Your task to perform on an android device: Go to CNN.com Image 0: 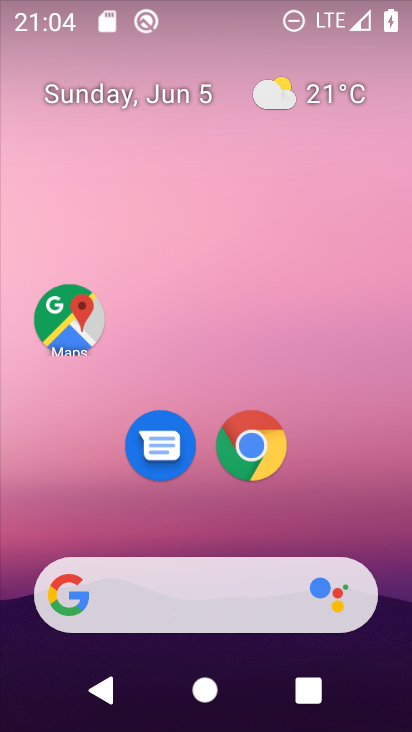
Step 0: click (248, 615)
Your task to perform on an android device: Go to CNN.com Image 1: 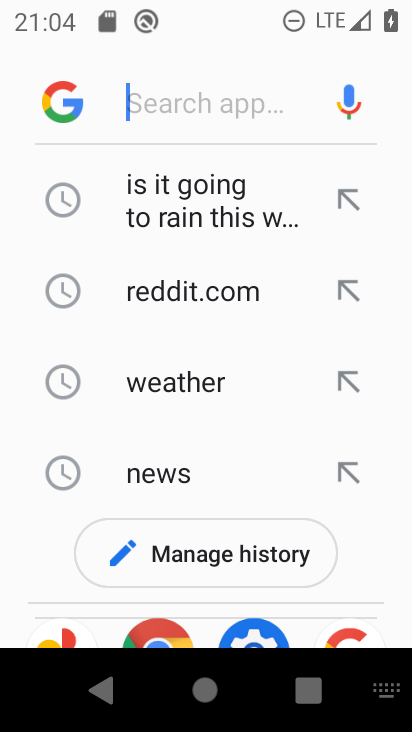
Step 1: type "CNN.com"
Your task to perform on an android device: Go to CNN.com Image 2: 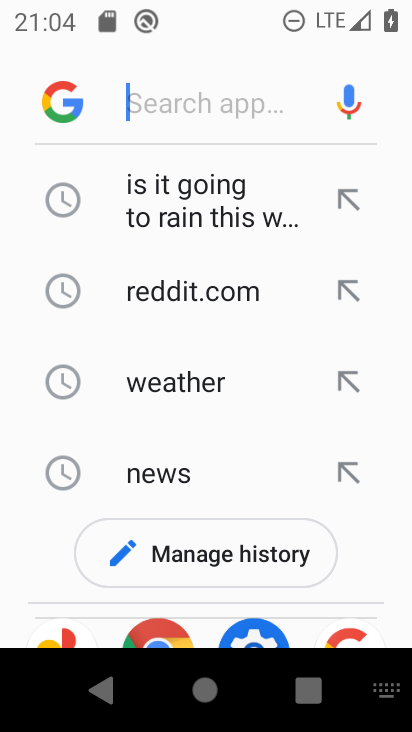
Step 2: click (197, 119)
Your task to perform on an android device: Go to CNN.com Image 3: 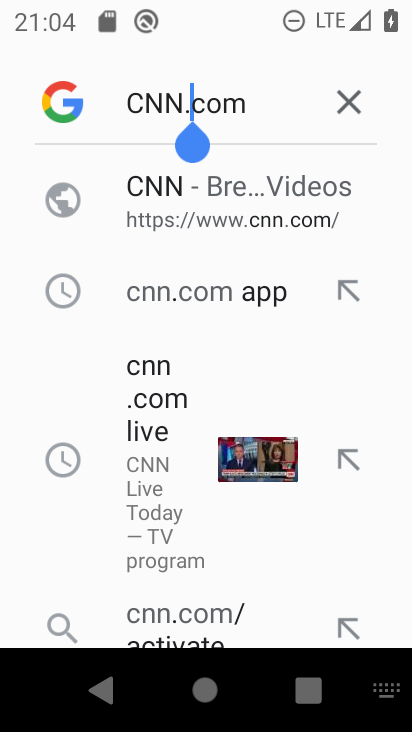
Step 3: click (187, 197)
Your task to perform on an android device: Go to CNN.com Image 4: 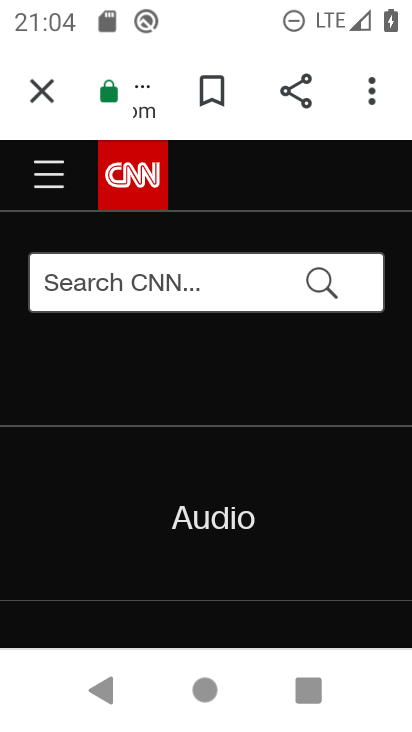
Step 4: task complete